Your task to perform on an android device: toggle airplane mode Image 0: 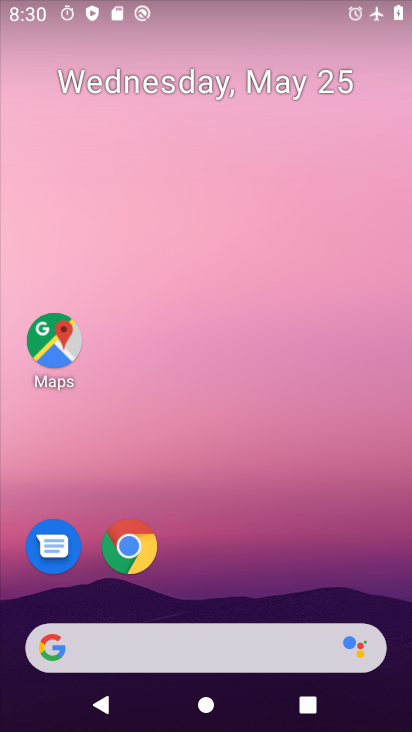
Step 0: drag from (228, 554) to (271, 0)
Your task to perform on an android device: toggle airplane mode Image 1: 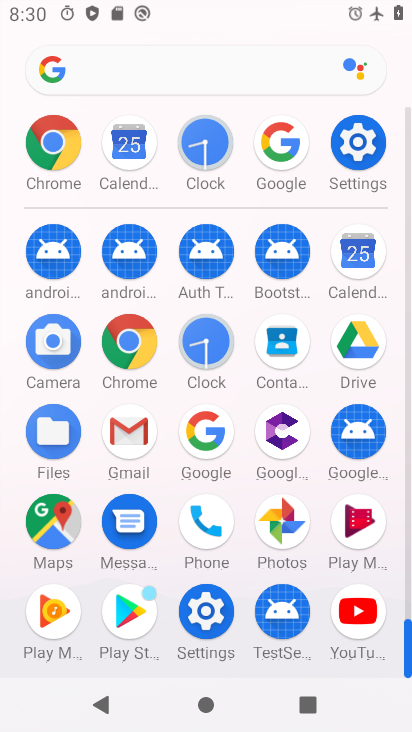
Step 1: click (346, 190)
Your task to perform on an android device: toggle airplane mode Image 2: 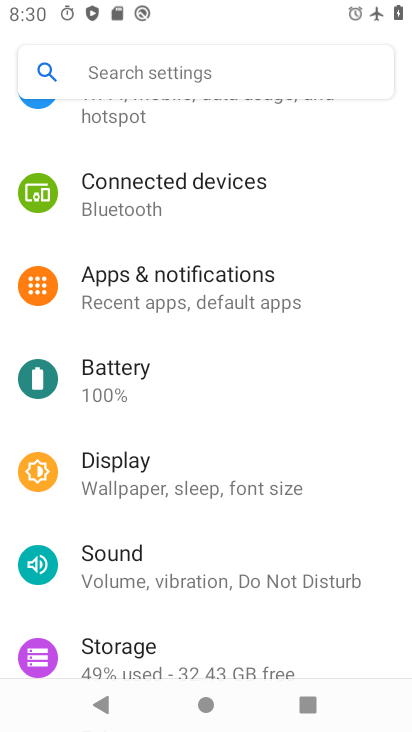
Step 2: drag from (264, 162) to (248, 337)
Your task to perform on an android device: toggle airplane mode Image 3: 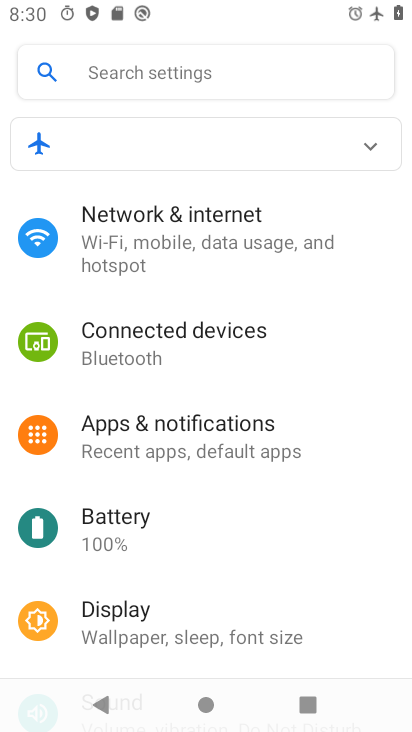
Step 3: click (368, 148)
Your task to perform on an android device: toggle airplane mode Image 4: 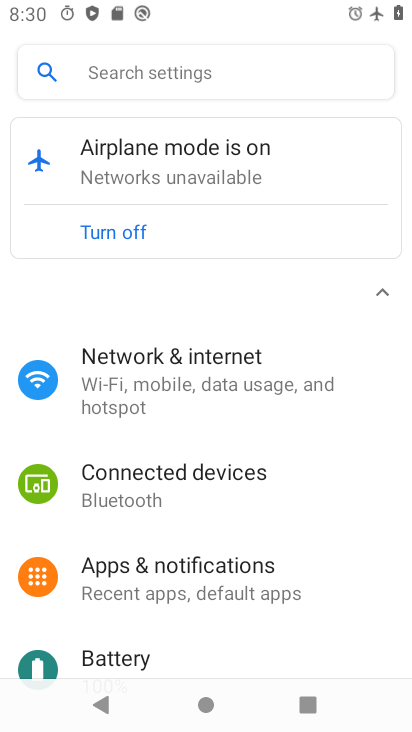
Step 4: click (132, 234)
Your task to perform on an android device: toggle airplane mode Image 5: 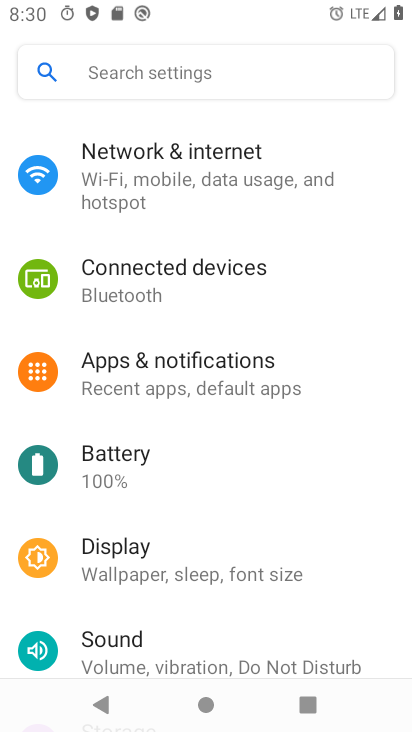
Step 5: task complete